Your task to perform on an android device: Go to eBay Image 0: 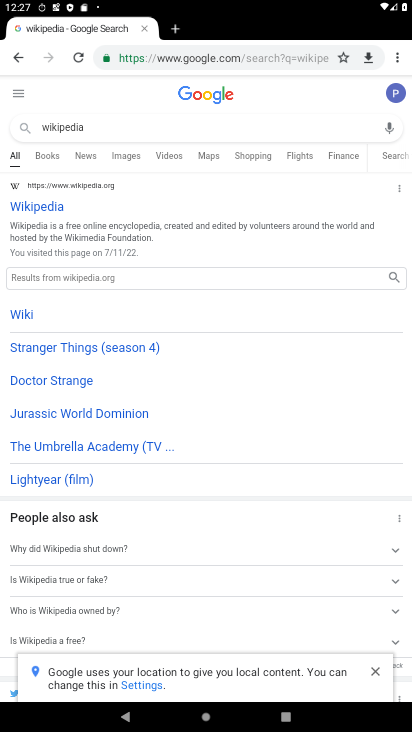
Step 0: drag from (400, 61) to (267, 41)
Your task to perform on an android device: Go to eBay Image 1: 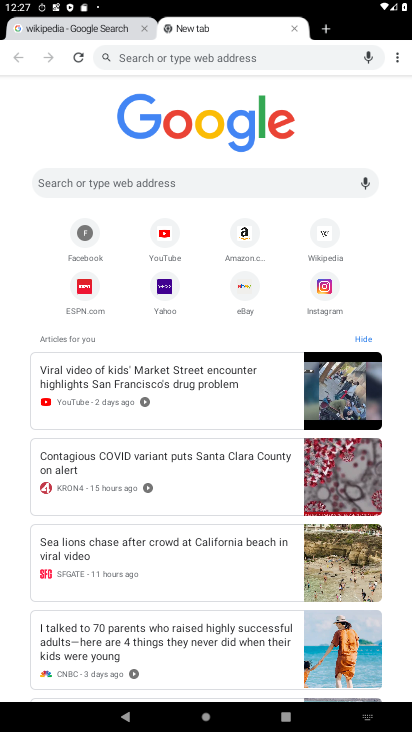
Step 1: click (251, 283)
Your task to perform on an android device: Go to eBay Image 2: 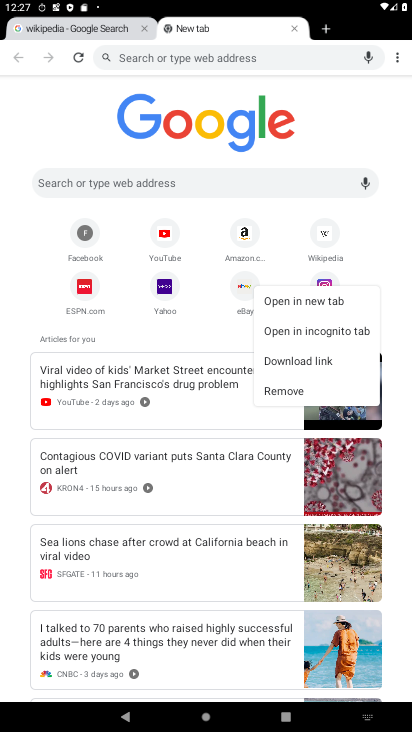
Step 2: click (241, 287)
Your task to perform on an android device: Go to eBay Image 3: 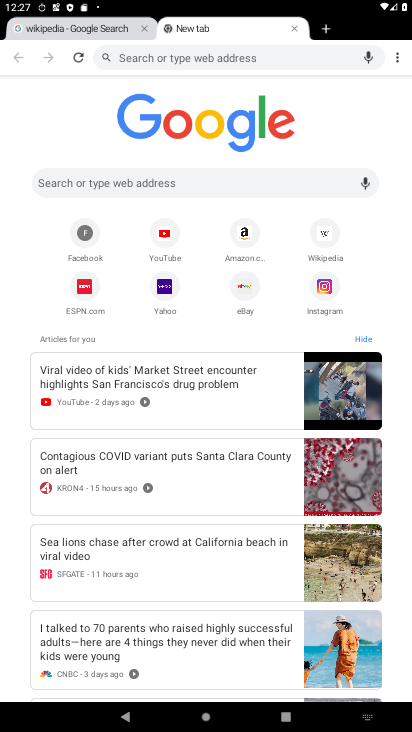
Step 3: click (241, 287)
Your task to perform on an android device: Go to eBay Image 4: 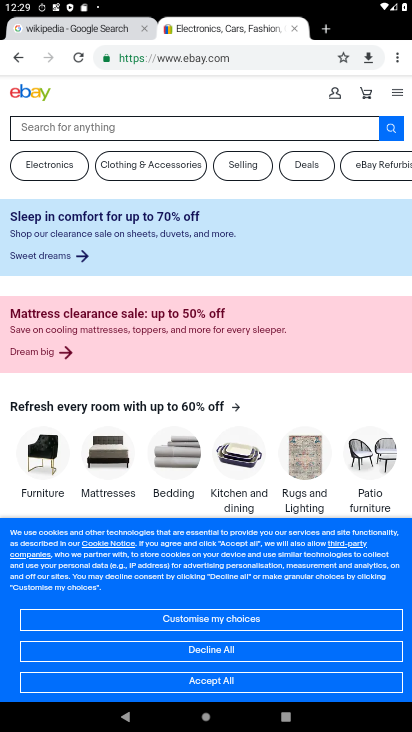
Step 4: click (174, 59)
Your task to perform on an android device: Go to eBay Image 5: 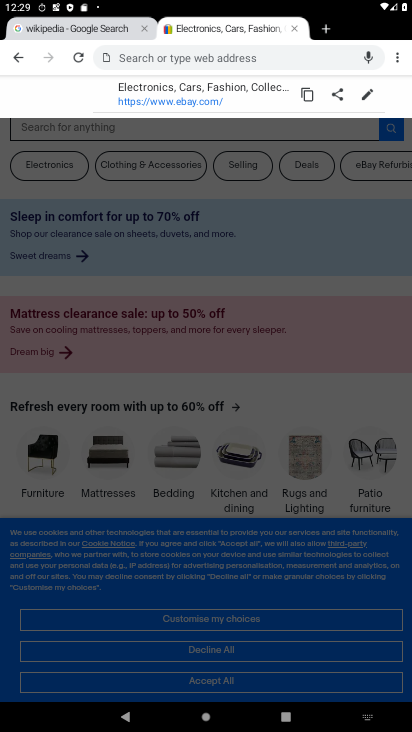
Step 5: click (174, 59)
Your task to perform on an android device: Go to eBay Image 6: 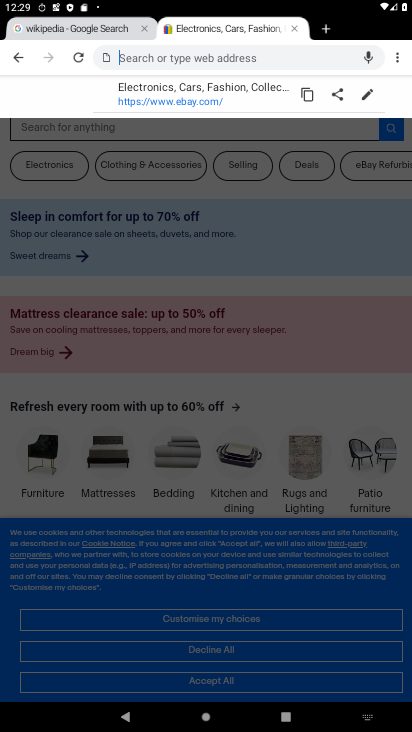
Step 6: click (157, 110)
Your task to perform on an android device: Go to eBay Image 7: 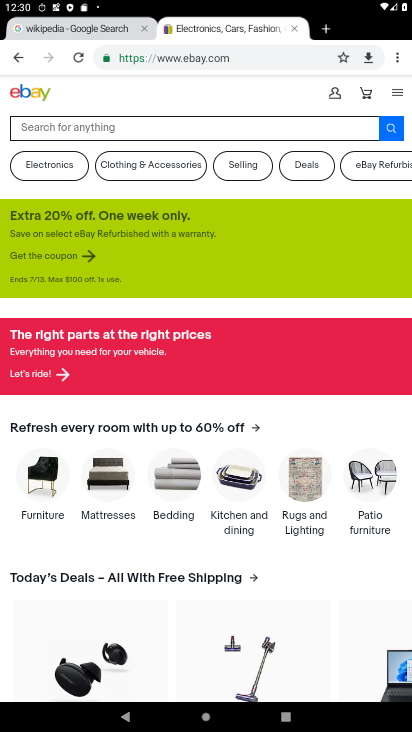
Step 7: task complete